Your task to perform on an android device: Go to internet settings Image 0: 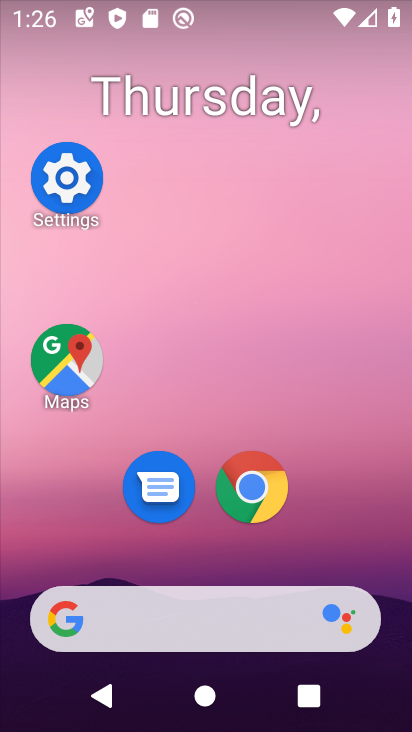
Step 0: task complete